Your task to perform on an android device: toggle pop-ups in chrome Image 0: 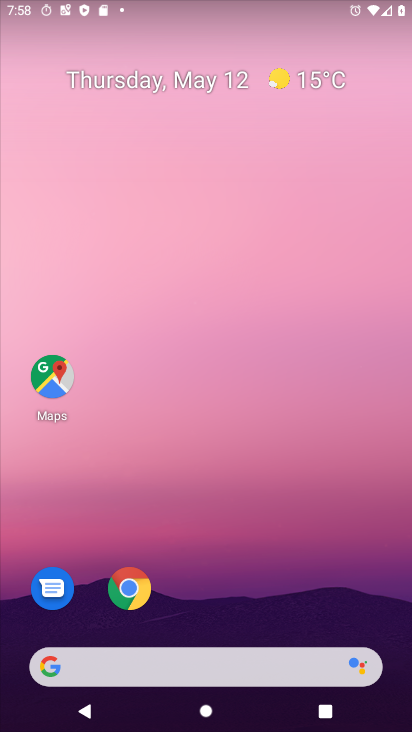
Step 0: click (124, 594)
Your task to perform on an android device: toggle pop-ups in chrome Image 1: 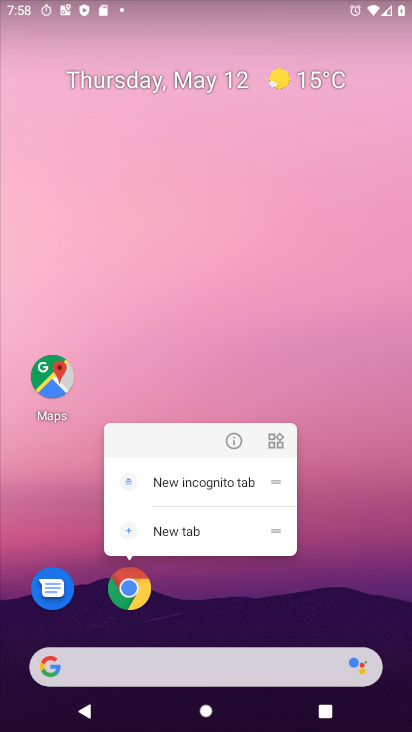
Step 1: click (131, 586)
Your task to perform on an android device: toggle pop-ups in chrome Image 2: 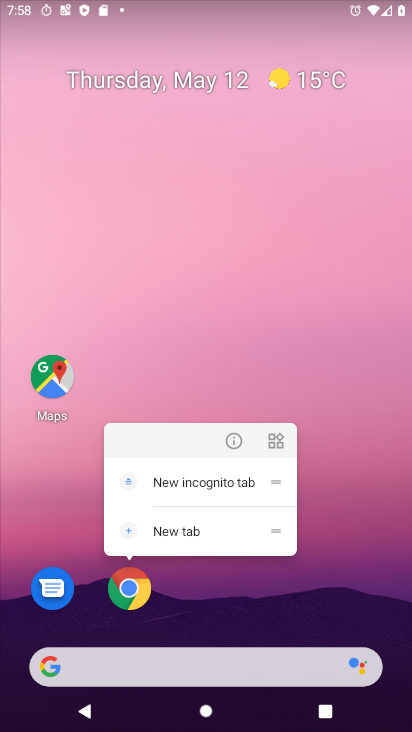
Step 2: click (123, 592)
Your task to perform on an android device: toggle pop-ups in chrome Image 3: 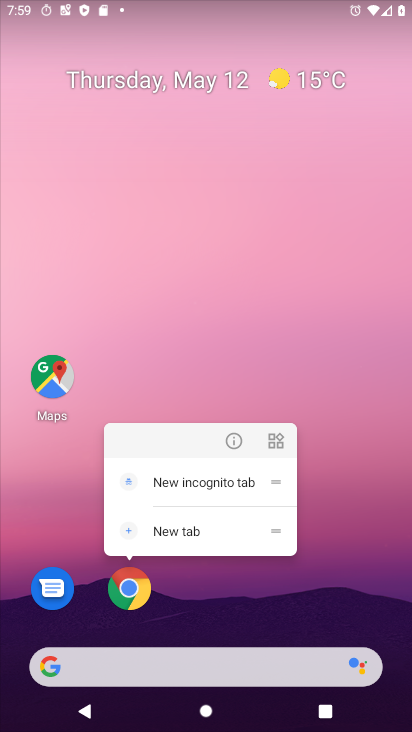
Step 3: click (127, 588)
Your task to perform on an android device: toggle pop-ups in chrome Image 4: 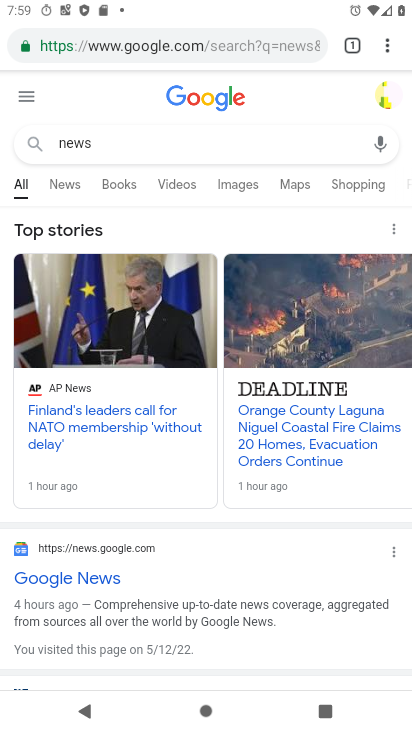
Step 4: click (389, 41)
Your task to perform on an android device: toggle pop-ups in chrome Image 5: 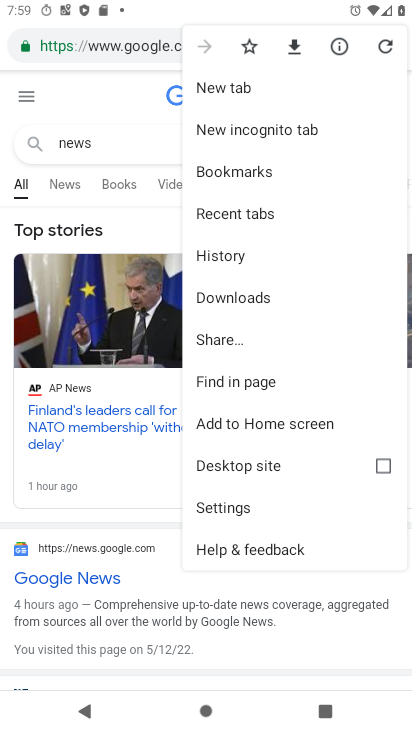
Step 5: click (212, 508)
Your task to perform on an android device: toggle pop-ups in chrome Image 6: 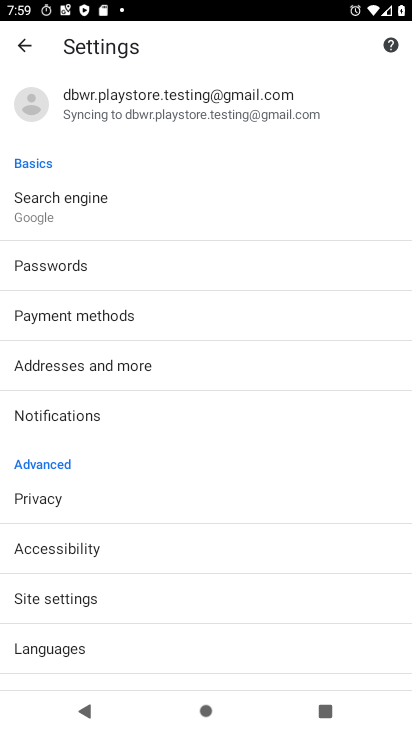
Step 6: drag from (78, 601) to (33, 601)
Your task to perform on an android device: toggle pop-ups in chrome Image 7: 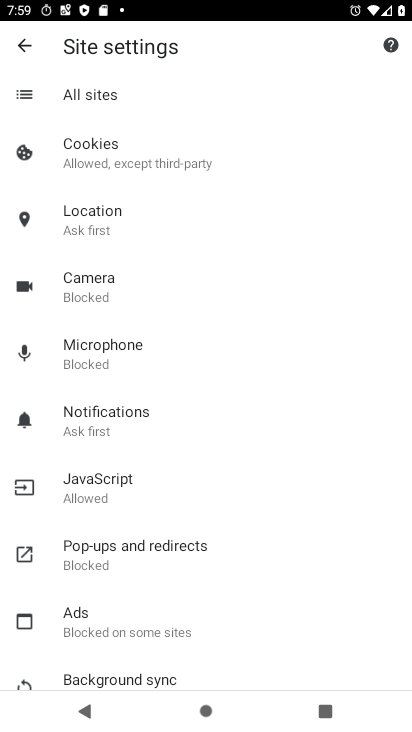
Step 7: click (192, 545)
Your task to perform on an android device: toggle pop-ups in chrome Image 8: 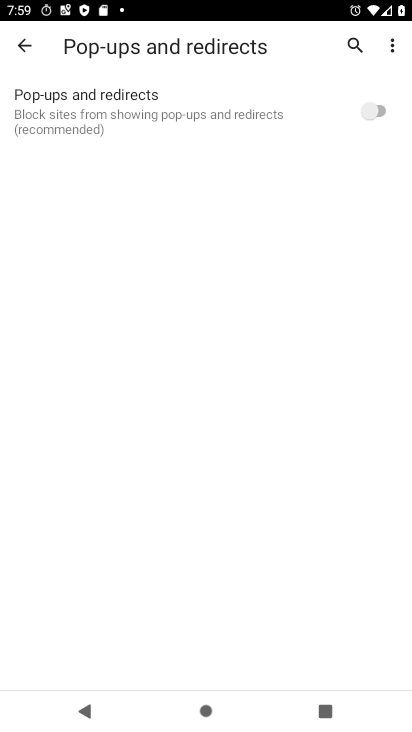
Step 8: click (365, 108)
Your task to perform on an android device: toggle pop-ups in chrome Image 9: 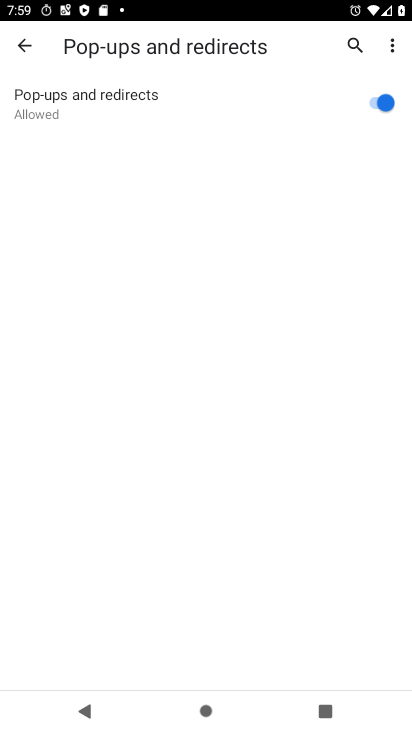
Step 9: task complete